Your task to perform on an android device: remove spam from my inbox in the gmail app Image 0: 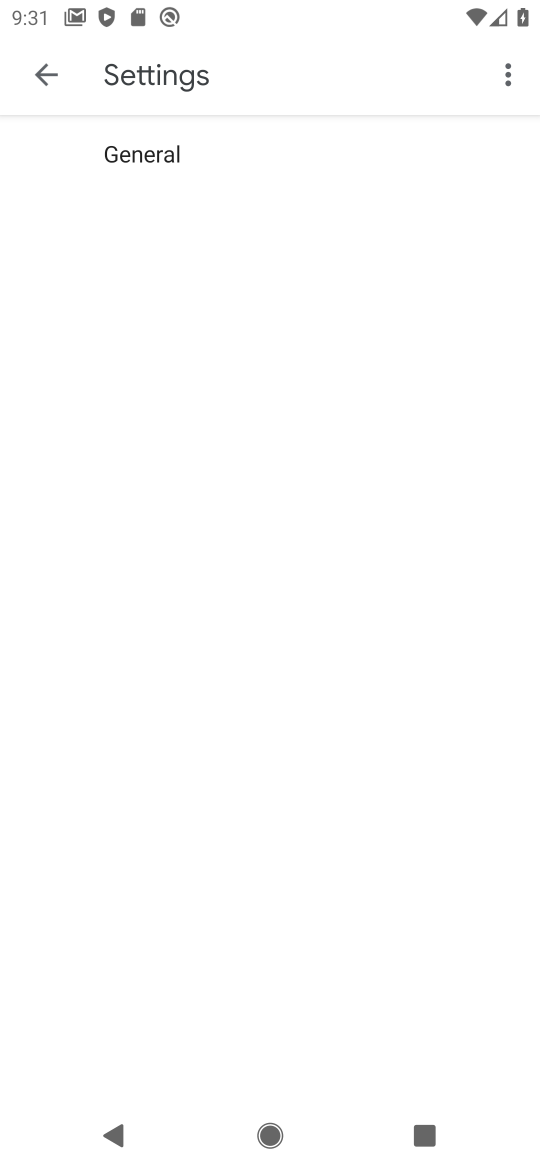
Step 0: press home button
Your task to perform on an android device: remove spam from my inbox in the gmail app Image 1: 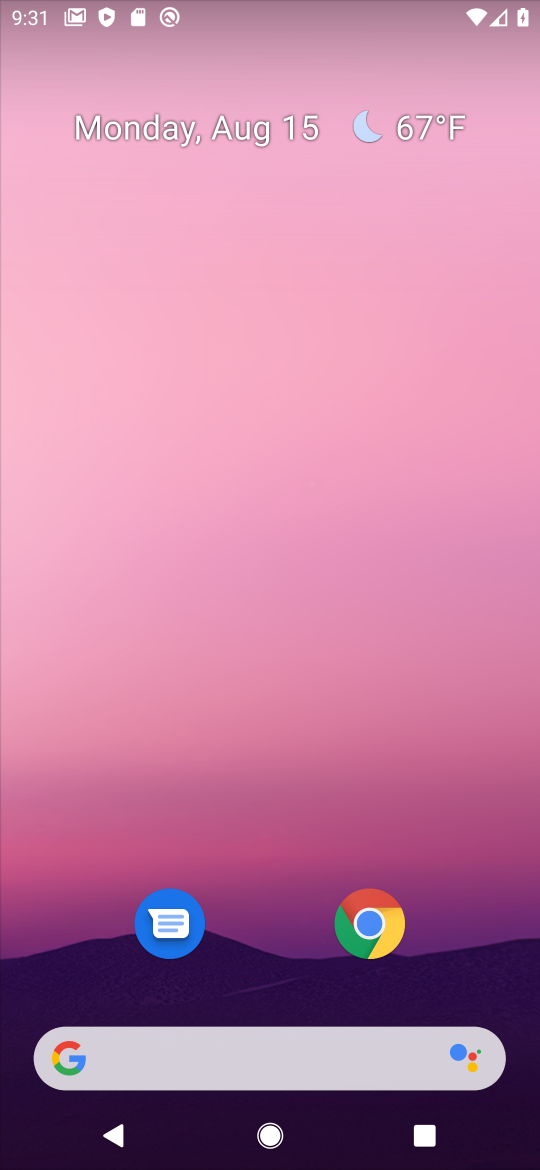
Step 1: drag from (118, 681) to (264, 8)
Your task to perform on an android device: remove spam from my inbox in the gmail app Image 2: 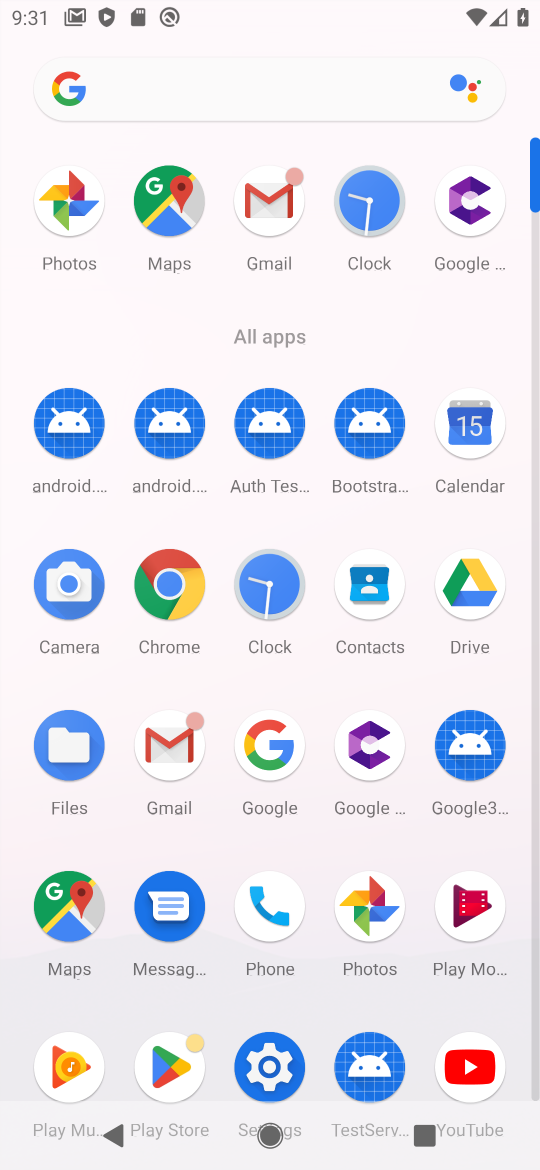
Step 2: click (248, 212)
Your task to perform on an android device: remove spam from my inbox in the gmail app Image 3: 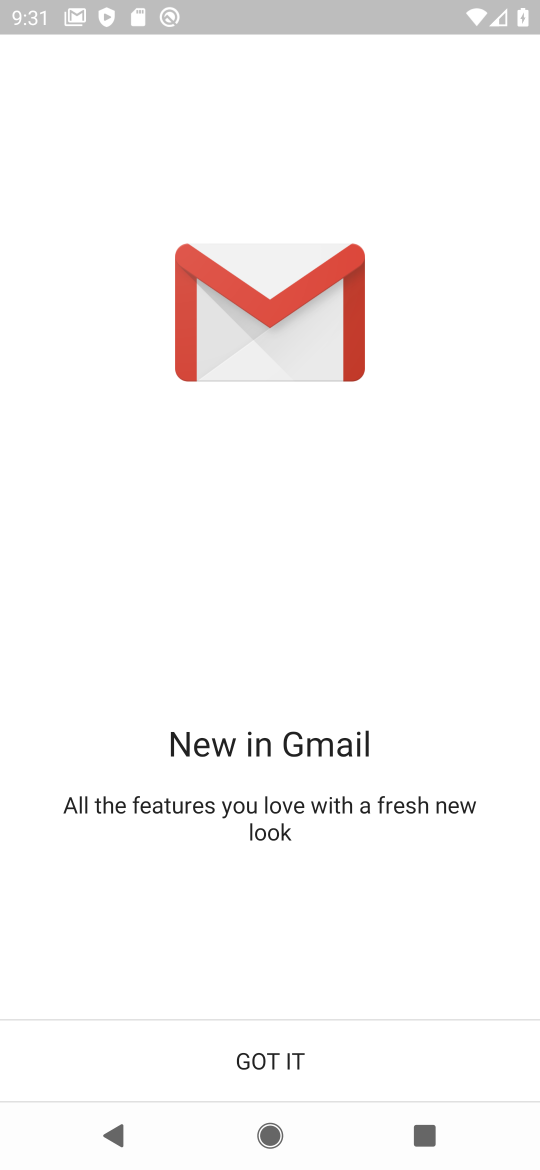
Step 3: click (236, 1040)
Your task to perform on an android device: remove spam from my inbox in the gmail app Image 4: 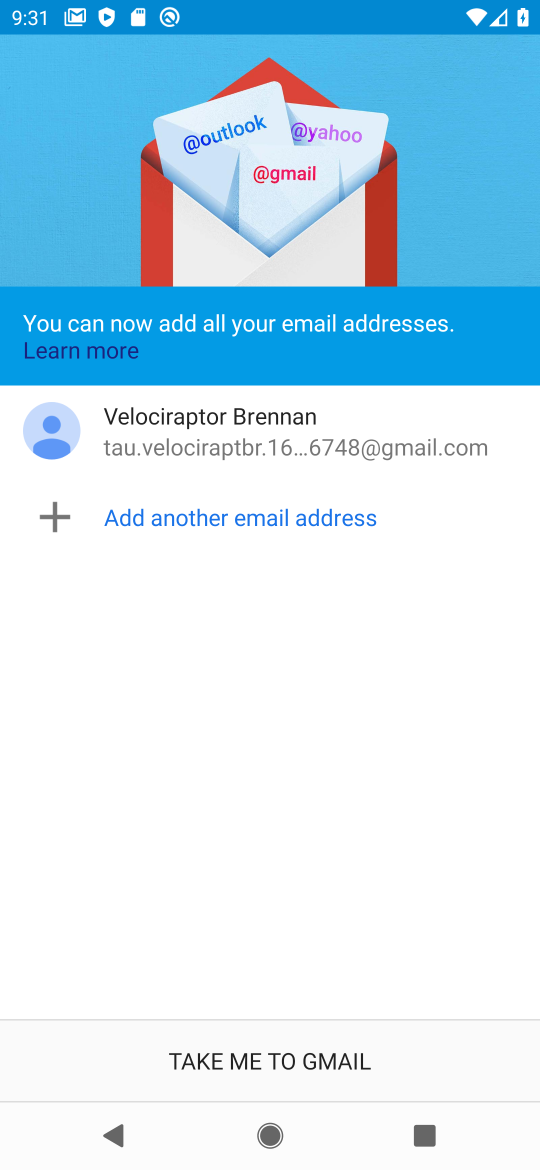
Step 4: click (224, 1060)
Your task to perform on an android device: remove spam from my inbox in the gmail app Image 5: 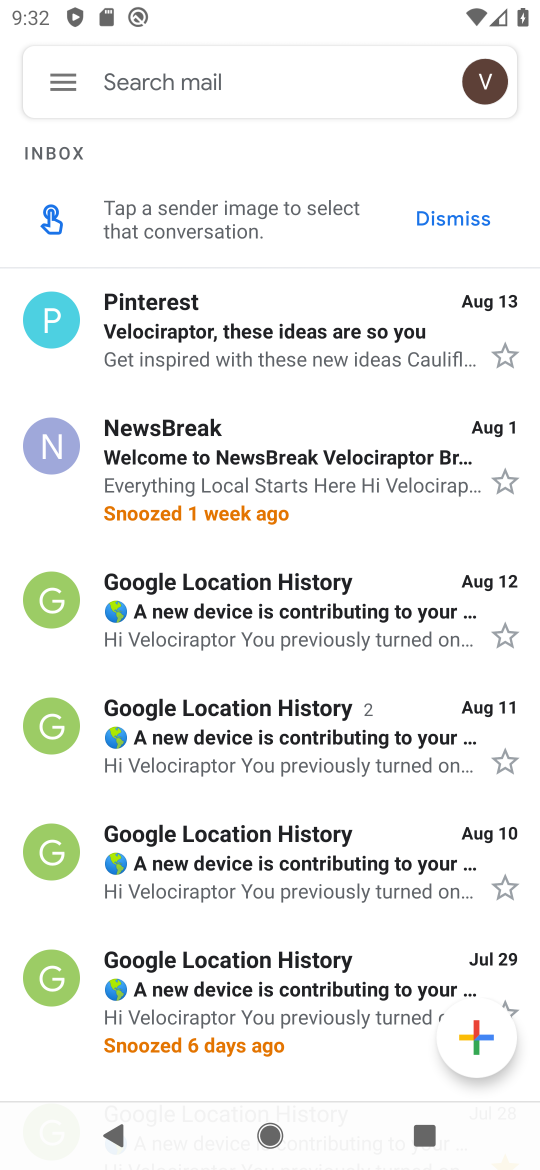
Step 5: click (60, 72)
Your task to perform on an android device: remove spam from my inbox in the gmail app Image 6: 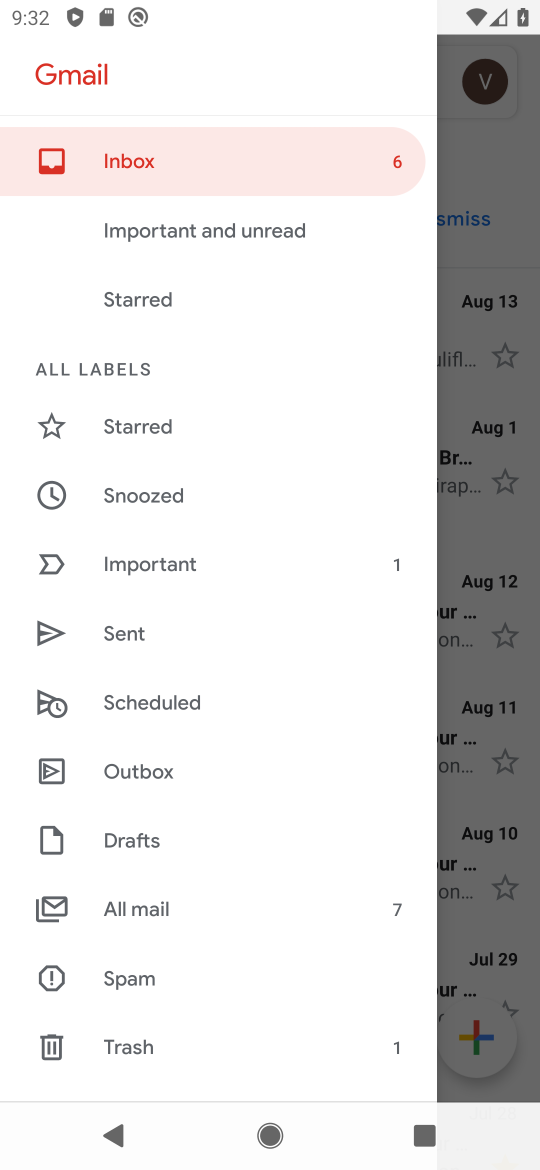
Step 6: click (151, 980)
Your task to perform on an android device: remove spam from my inbox in the gmail app Image 7: 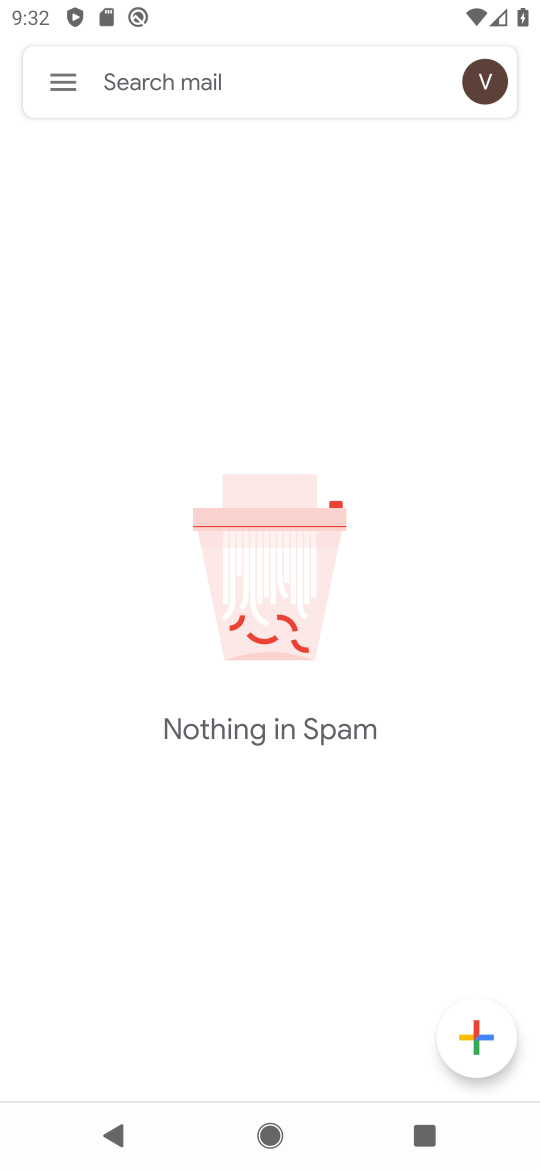
Step 7: task complete